Your task to perform on an android device: When is my next meeting? Image 0: 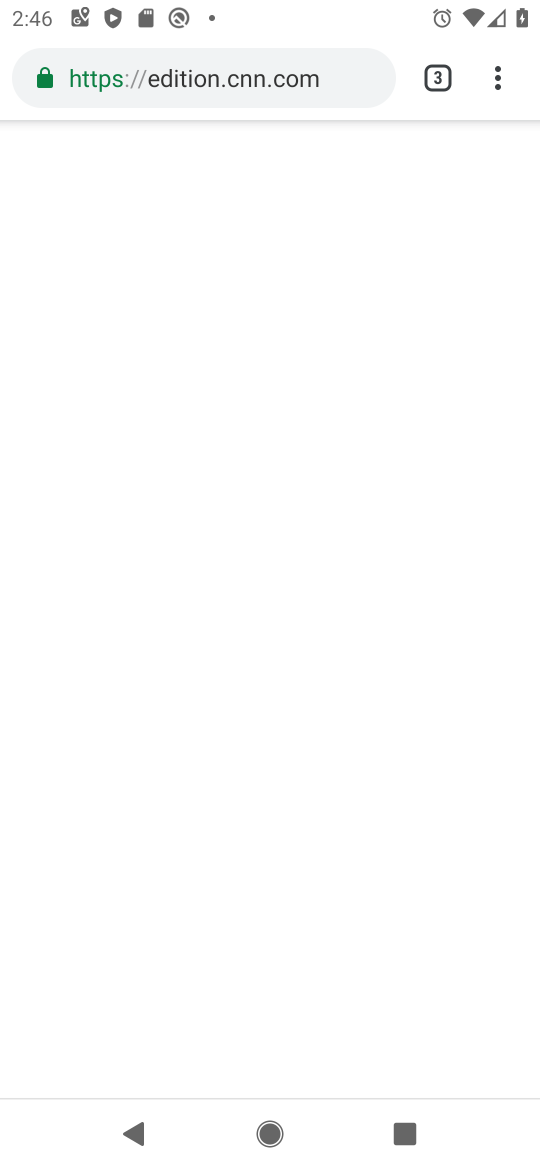
Step 0: press home button
Your task to perform on an android device: When is my next meeting? Image 1: 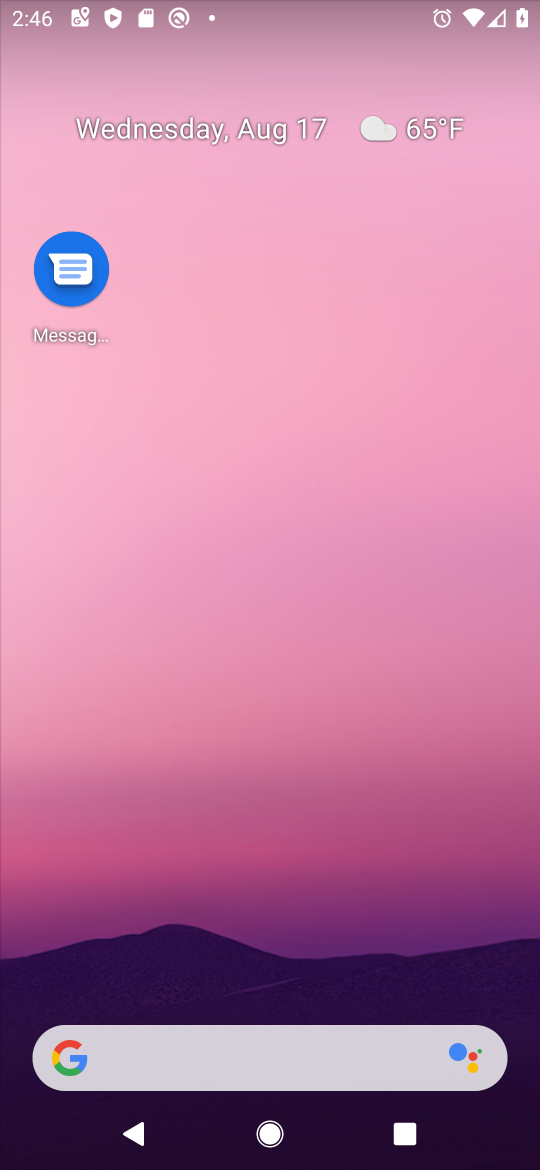
Step 1: drag from (213, 266) to (181, 53)
Your task to perform on an android device: When is my next meeting? Image 2: 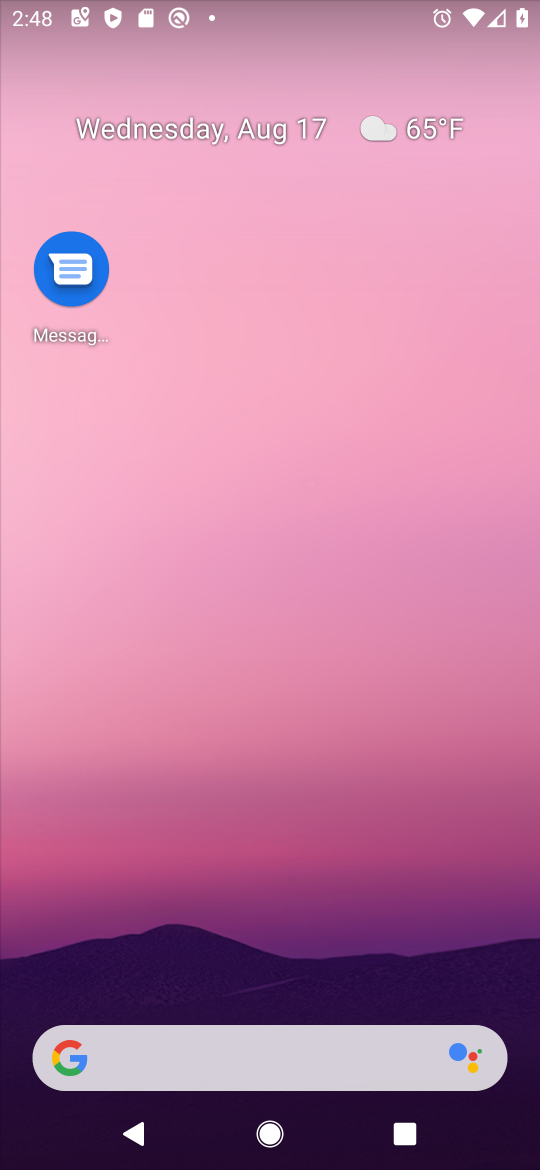
Step 2: drag from (182, 1000) to (422, 0)
Your task to perform on an android device: When is my next meeting? Image 3: 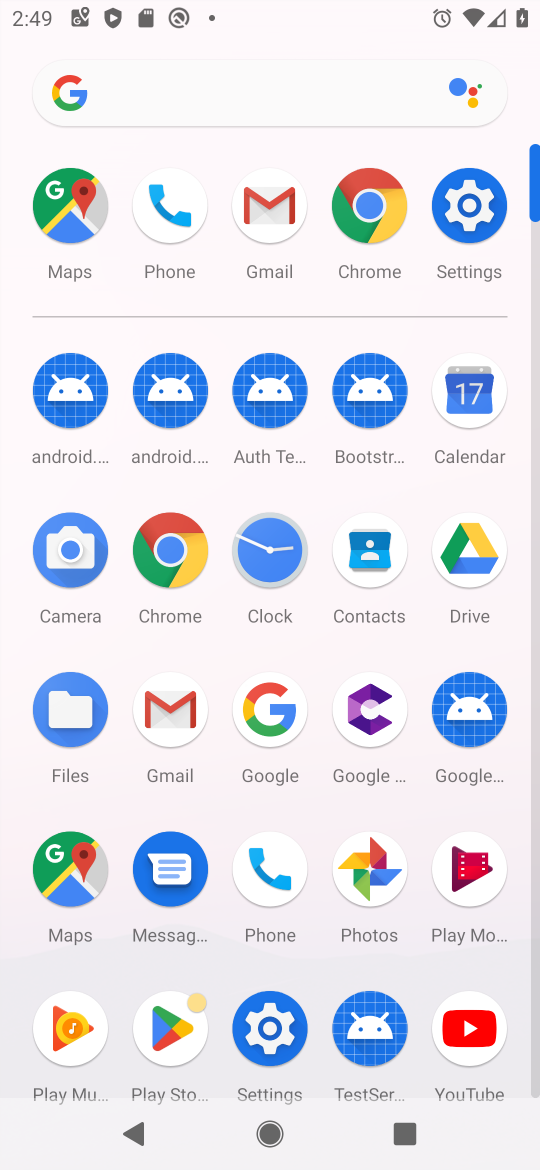
Step 3: click (482, 414)
Your task to perform on an android device: When is my next meeting? Image 4: 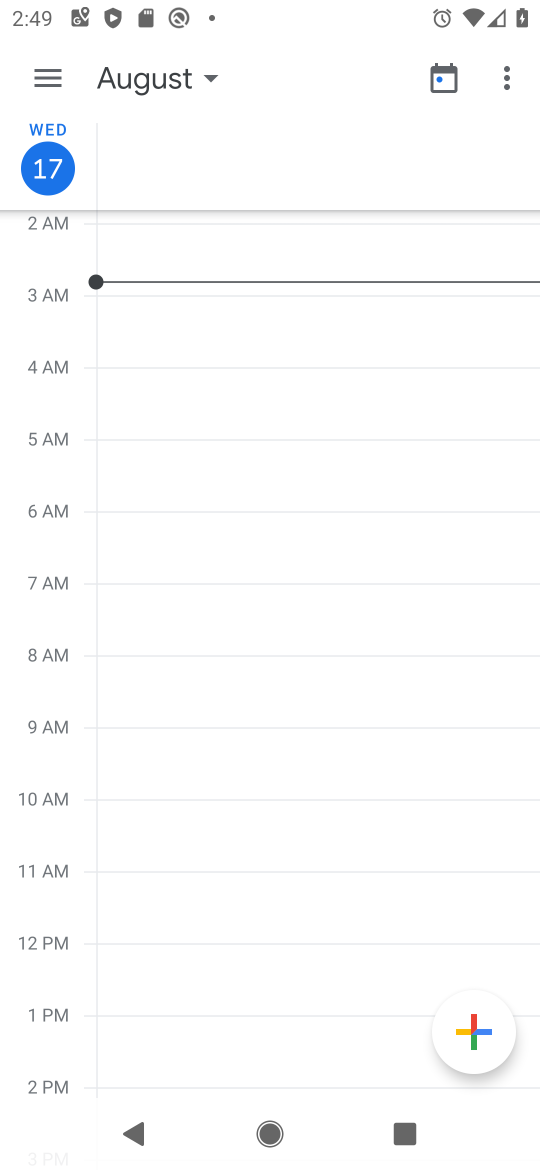
Step 4: click (462, 82)
Your task to perform on an android device: When is my next meeting? Image 5: 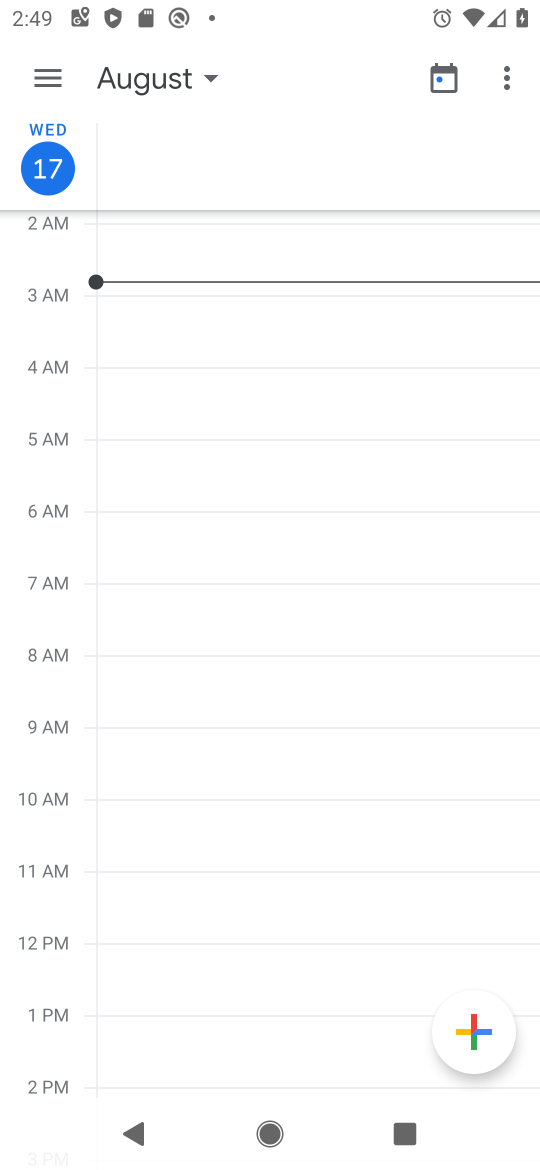
Step 5: click (429, 83)
Your task to perform on an android device: When is my next meeting? Image 6: 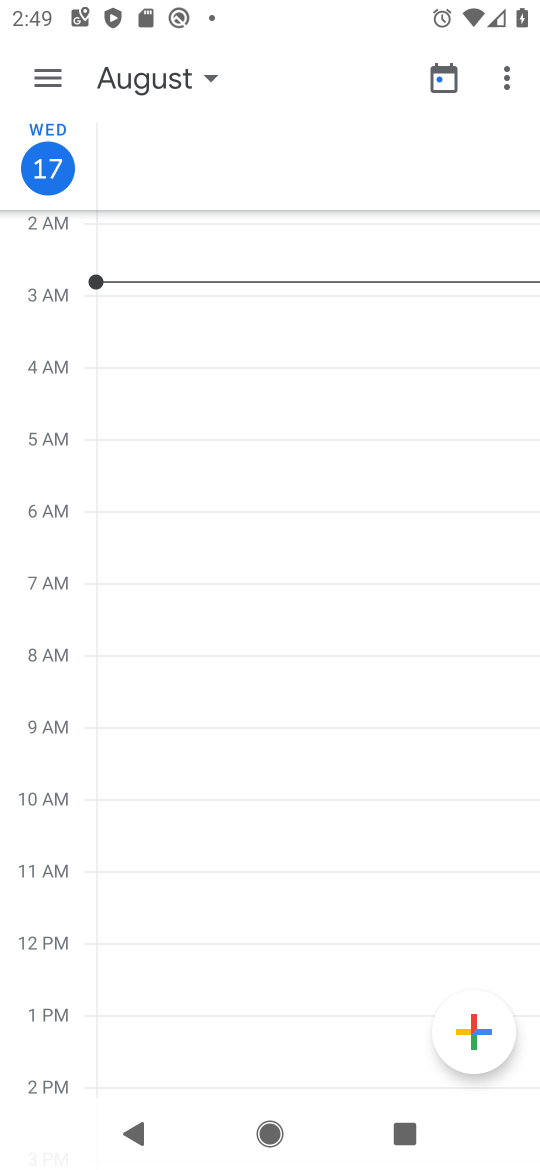
Step 6: click (422, 80)
Your task to perform on an android device: When is my next meeting? Image 7: 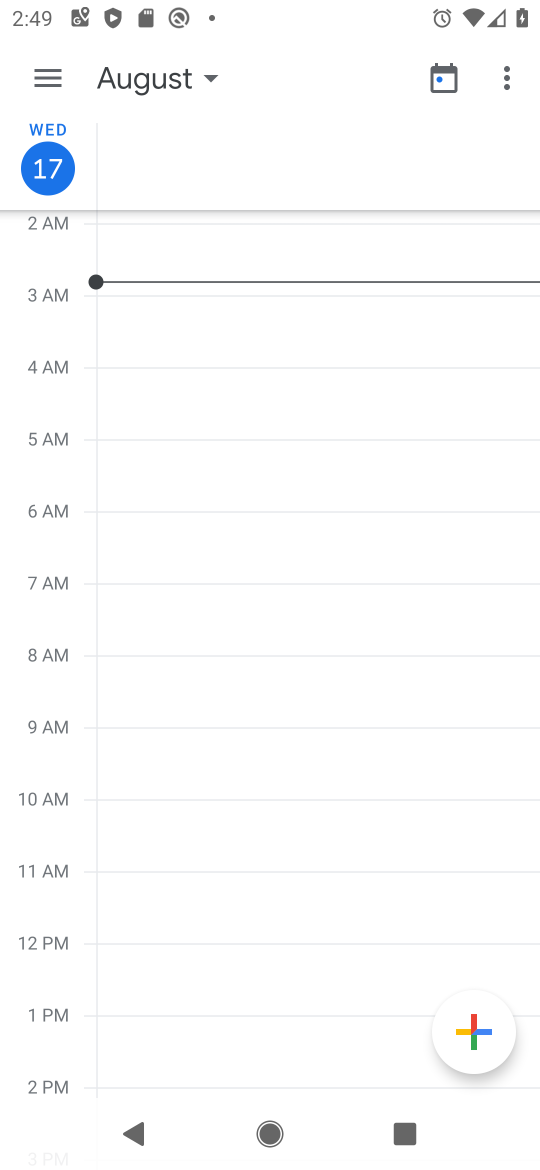
Step 7: click (446, 83)
Your task to perform on an android device: When is my next meeting? Image 8: 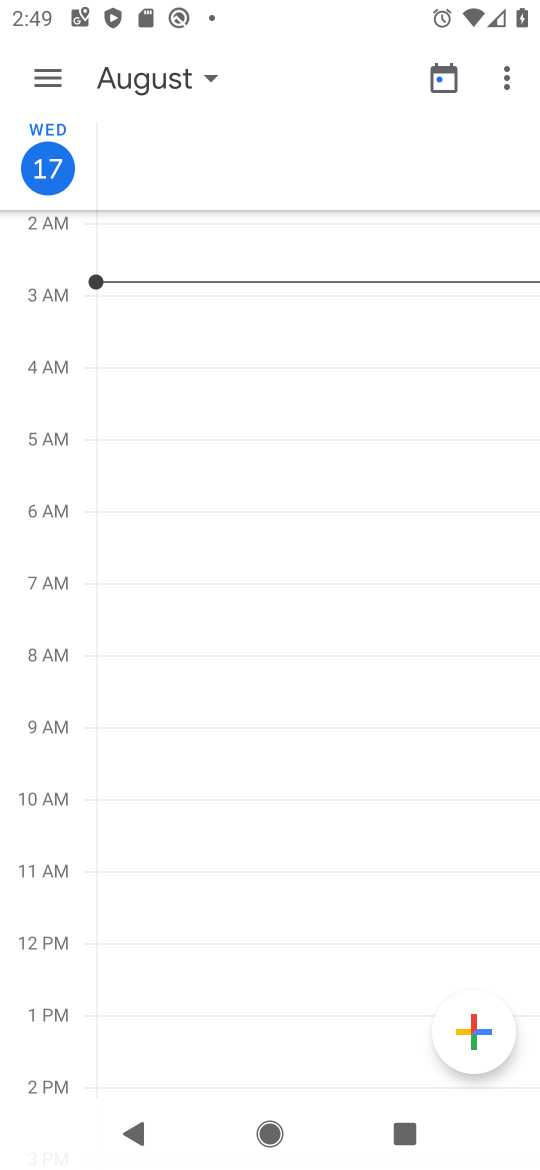
Step 8: click (445, 80)
Your task to perform on an android device: When is my next meeting? Image 9: 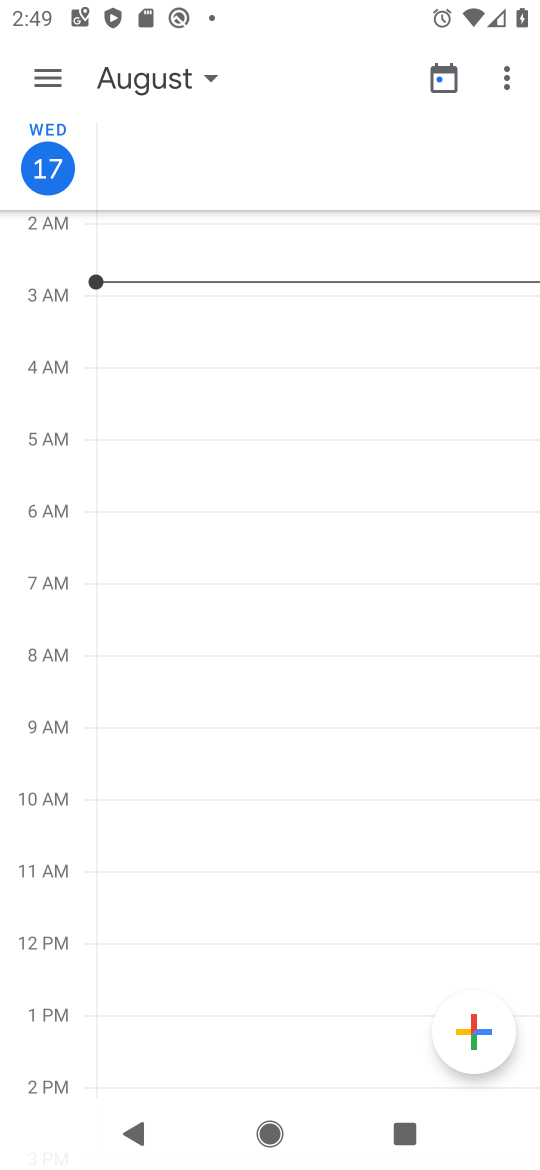
Step 9: click (29, 73)
Your task to perform on an android device: When is my next meeting? Image 10: 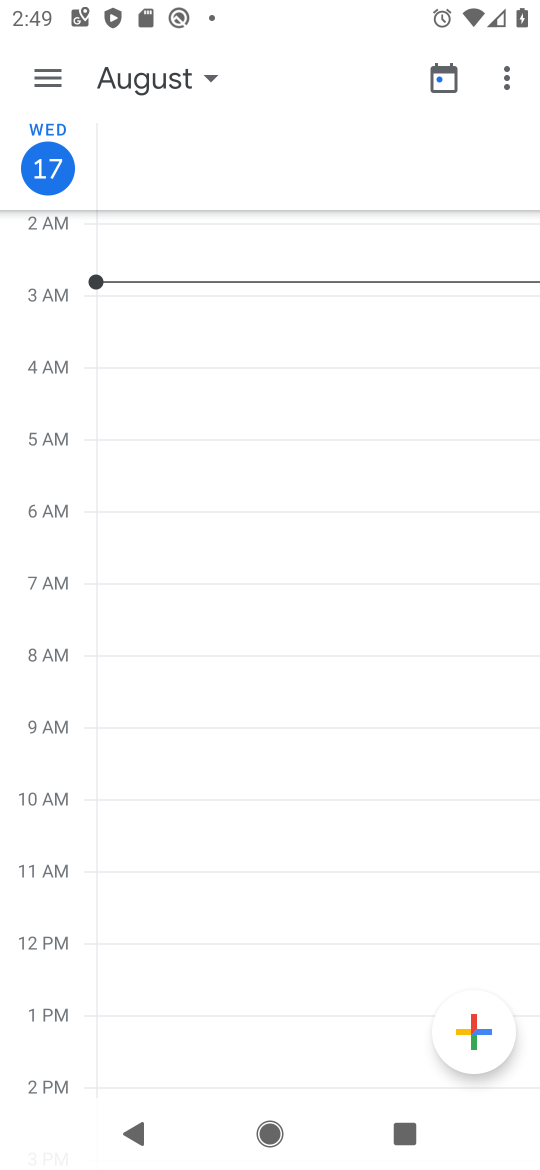
Step 10: click (43, 73)
Your task to perform on an android device: When is my next meeting? Image 11: 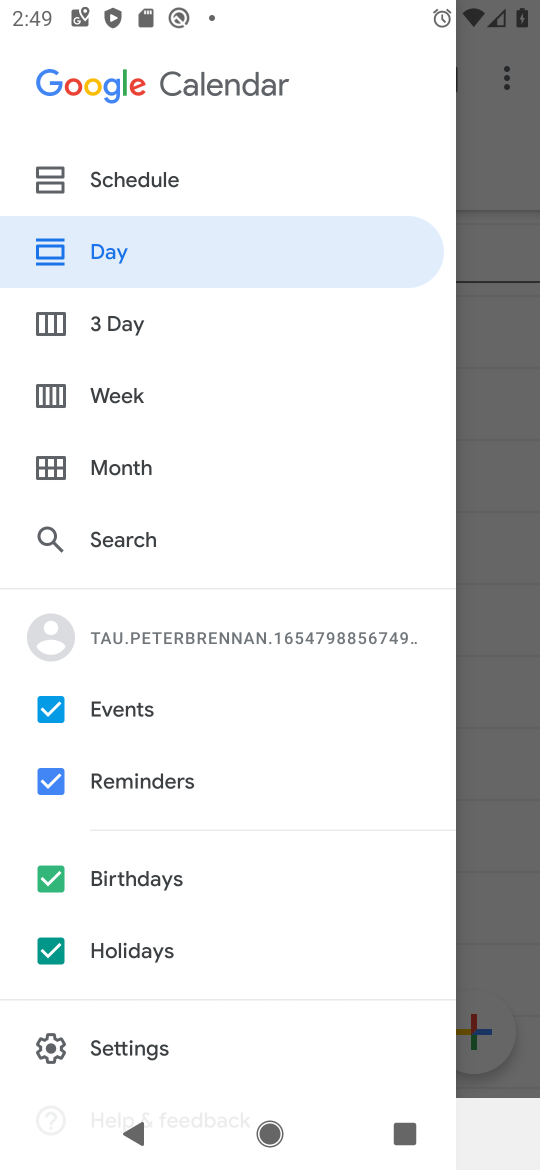
Step 11: click (106, 398)
Your task to perform on an android device: When is my next meeting? Image 12: 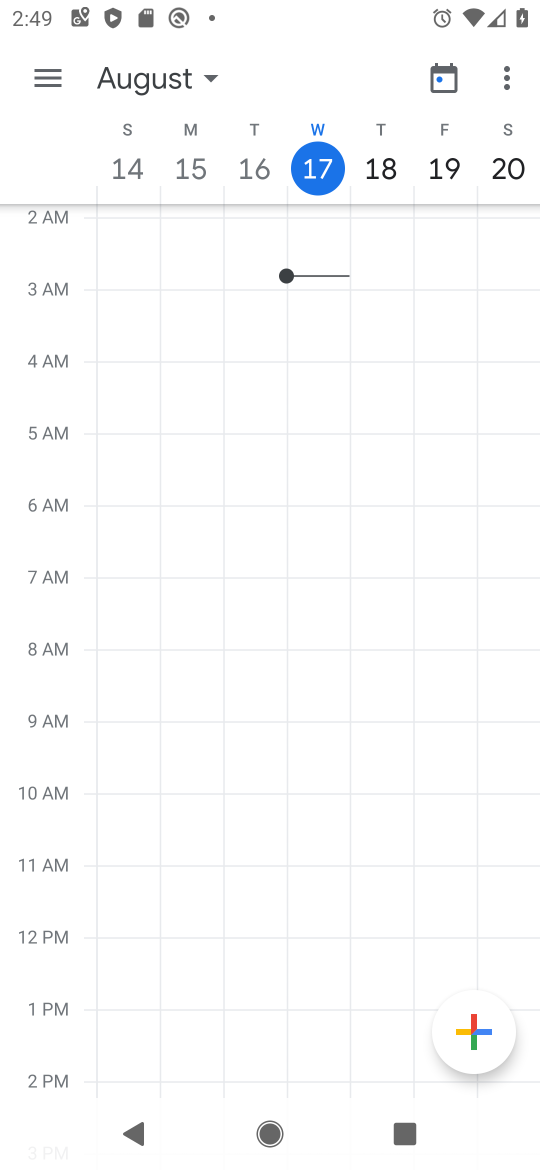
Step 12: task complete